Your task to perform on an android device: What's the weather going to be tomorrow? Image 0: 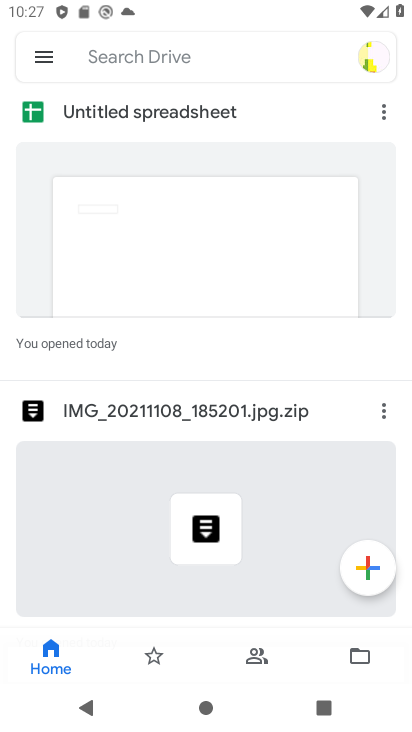
Step 0: press home button
Your task to perform on an android device: What's the weather going to be tomorrow? Image 1: 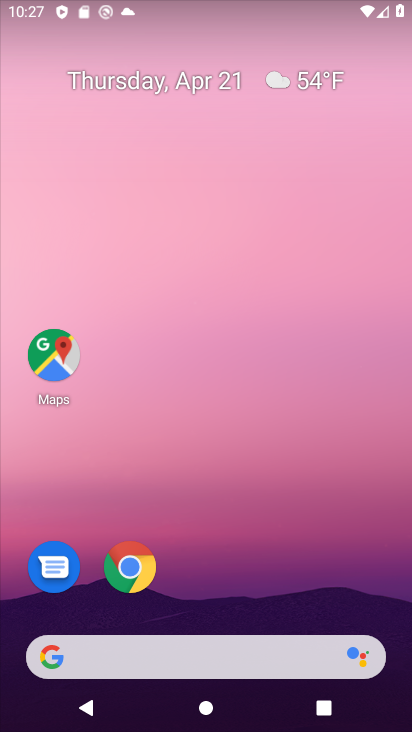
Step 1: drag from (252, 418) to (241, 21)
Your task to perform on an android device: What's the weather going to be tomorrow? Image 2: 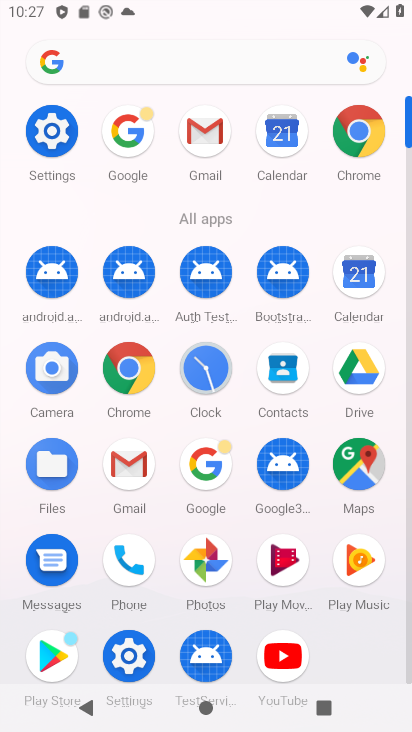
Step 2: click (203, 464)
Your task to perform on an android device: What's the weather going to be tomorrow? Image 3: 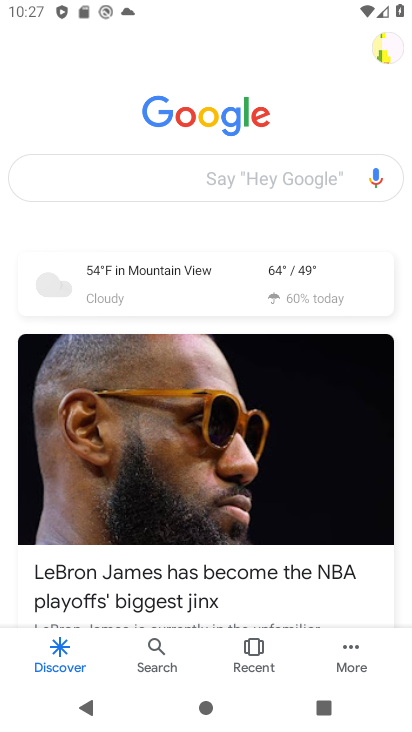
Step 3: click (221, 177)
Your task to perform on an android device: What's the weather going to be tomorrow? Image 4: 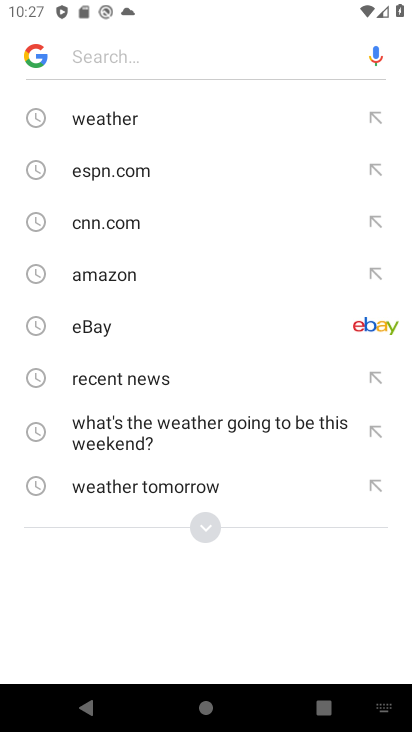
Step 4: click (162, 491)
Your task to perform on an android device: What's the weather going to be tomorrow? Image 5: 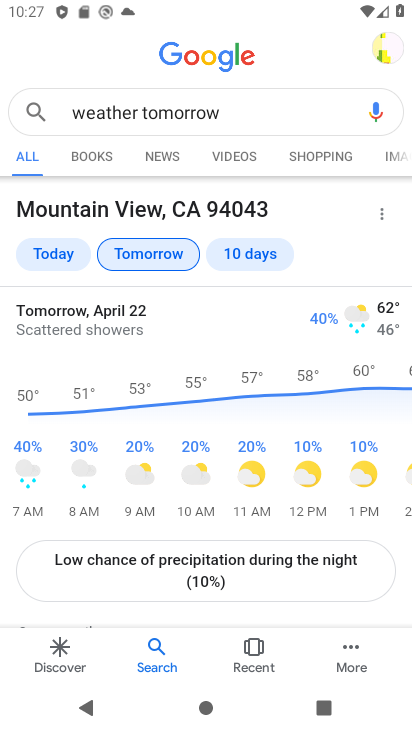
Step 5: task complete